Your task to perform on an android device: set the timer Image 0: 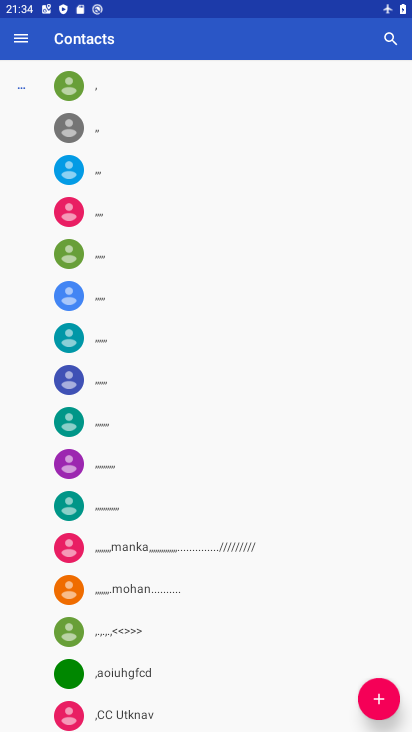
Step 0: press home button
Your task to perform on an android device: set the timer Image 1: 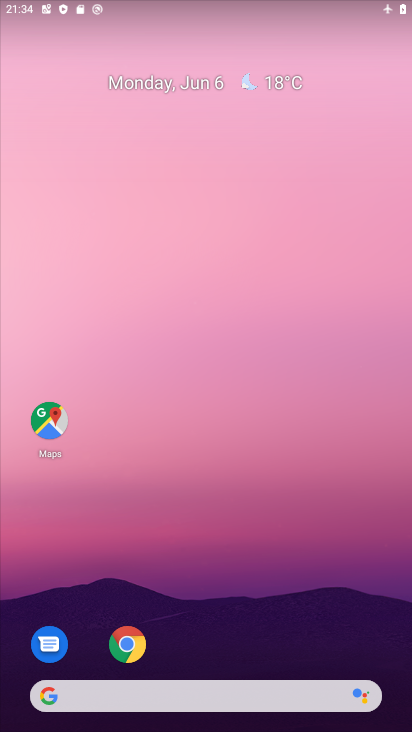
Step 1: drag from (311, 617) to (274, 242)
Your task to perform on an android device: set the timer Image 2: 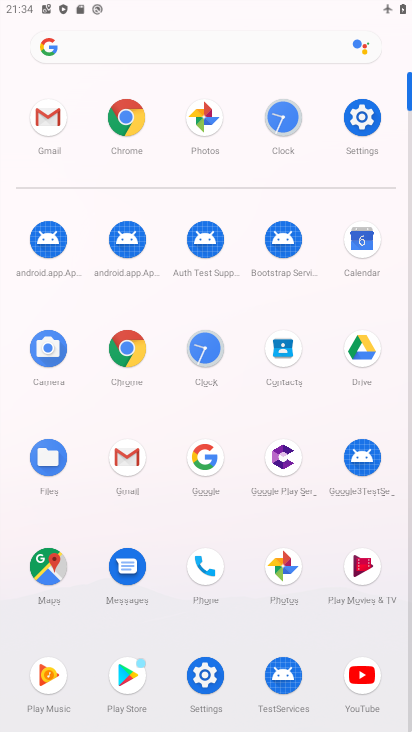
Step 2: click (192, 360)
Your task to perform on an android device: set the timer Image 3: 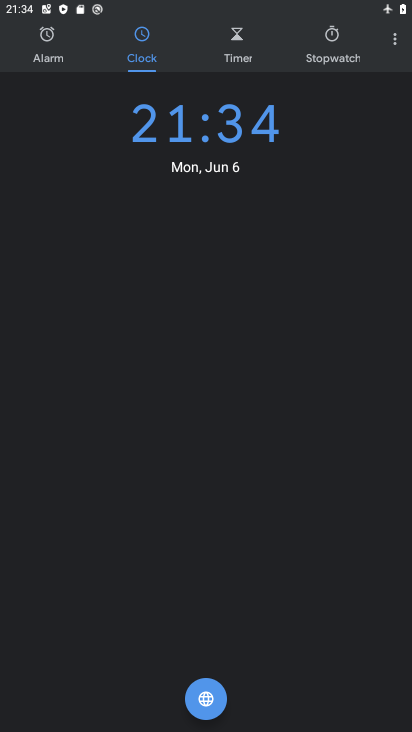
Step 3: click (251, 46)
Your task to perform on an android device: set the timer Image 4: 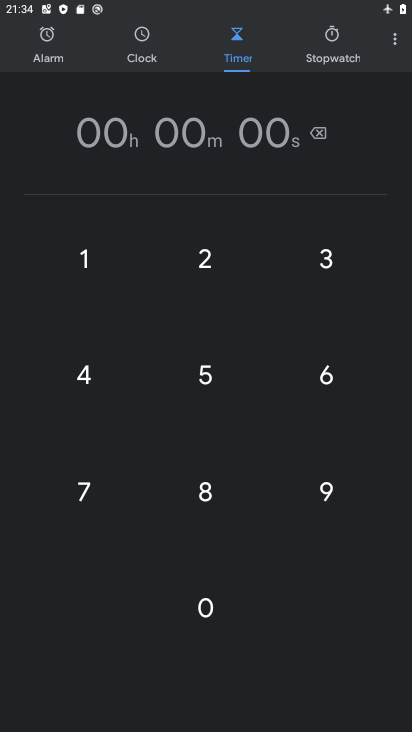
Step 4: click (72, 263)
Your task to perform on an android device: set the timer Image 5: 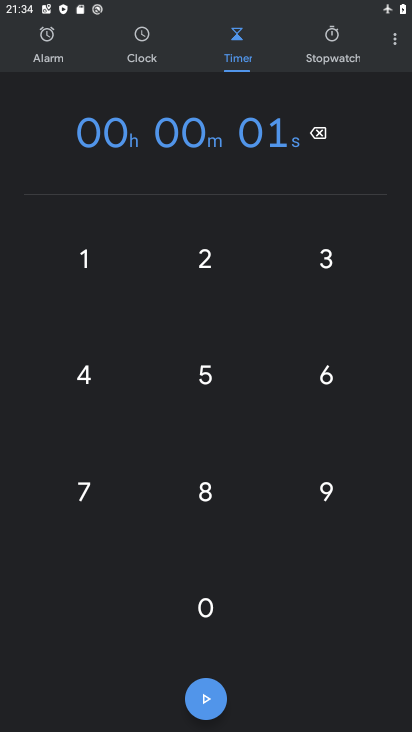
Step 5: click (208, 372)
Your task to perform on an android device: set the timer Image 6: 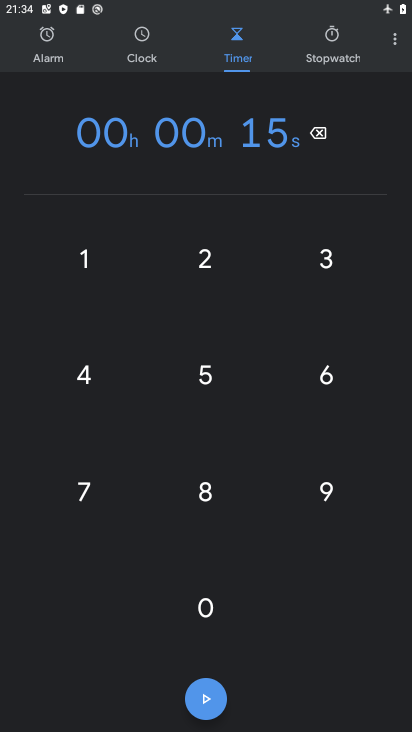
Step 6: click (208, 694)
Your task to perform on an android device: set the timer Image 7: 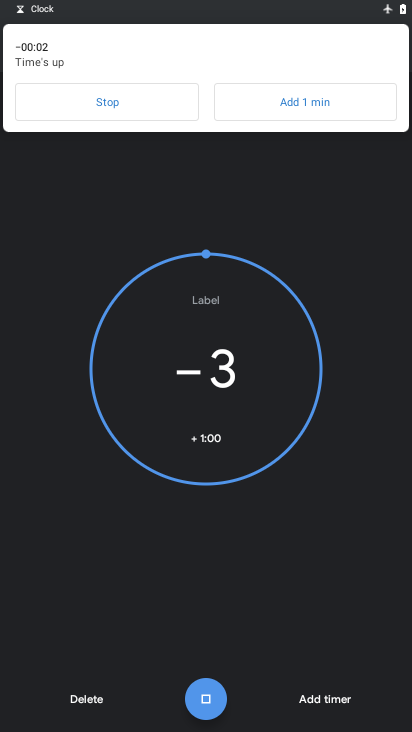
Step 7: click (203, 694)
Your task to perform on an android device: set the timer Image 8: 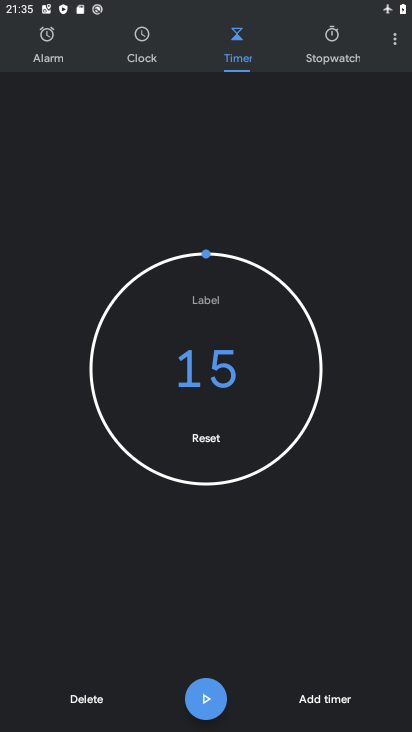
Step 8: task complete